Your task to perform on an android device: turn off wifi Image 0: 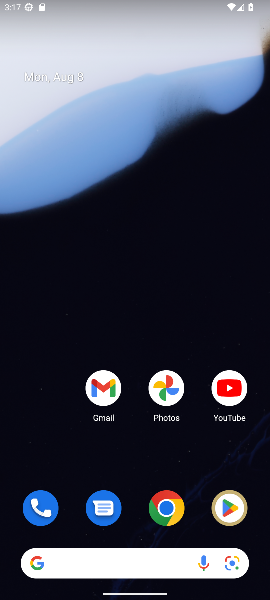
Step 0: drag from (137, 472) to (107, 57)
Your task to perform on an android device: turn off wifi Image 1: 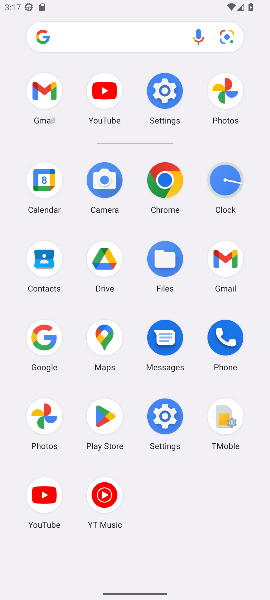
Step 1: click (165, 91)
Your task to perform on an android device: turn off wifi Image 2: 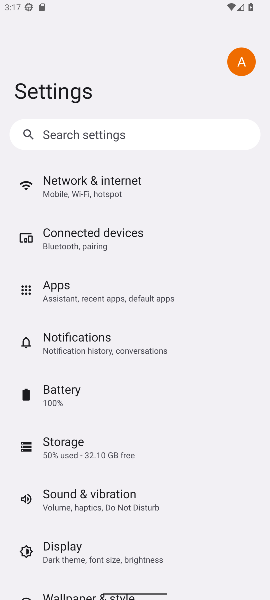
Step 2: click (90, 181)
Your task to perform on an android device: turn off wifi Image 3: 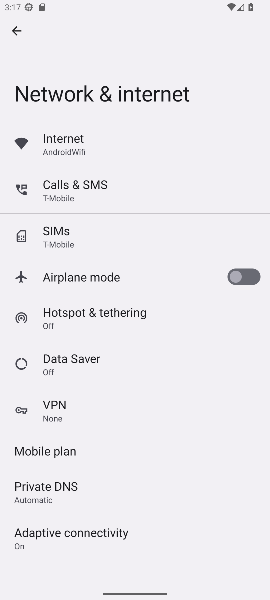
Step 3: click (69, 136)
Your task to perform on an android device: turn off wifi Image 4: 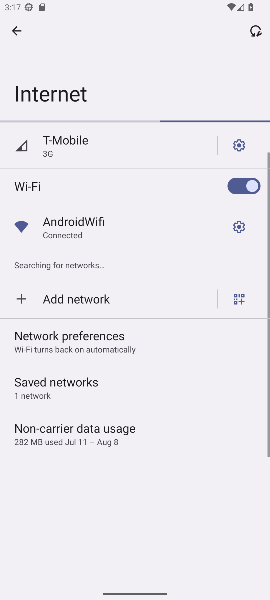
Step 4: click (244, 192)
Your task to perform on an android device: turn off wifi Image 5: 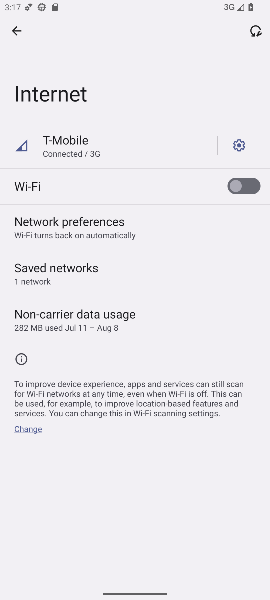
Step 5: task complete